Your task to perform on an android device: open app "Duolingo: language lessons" Image 0: 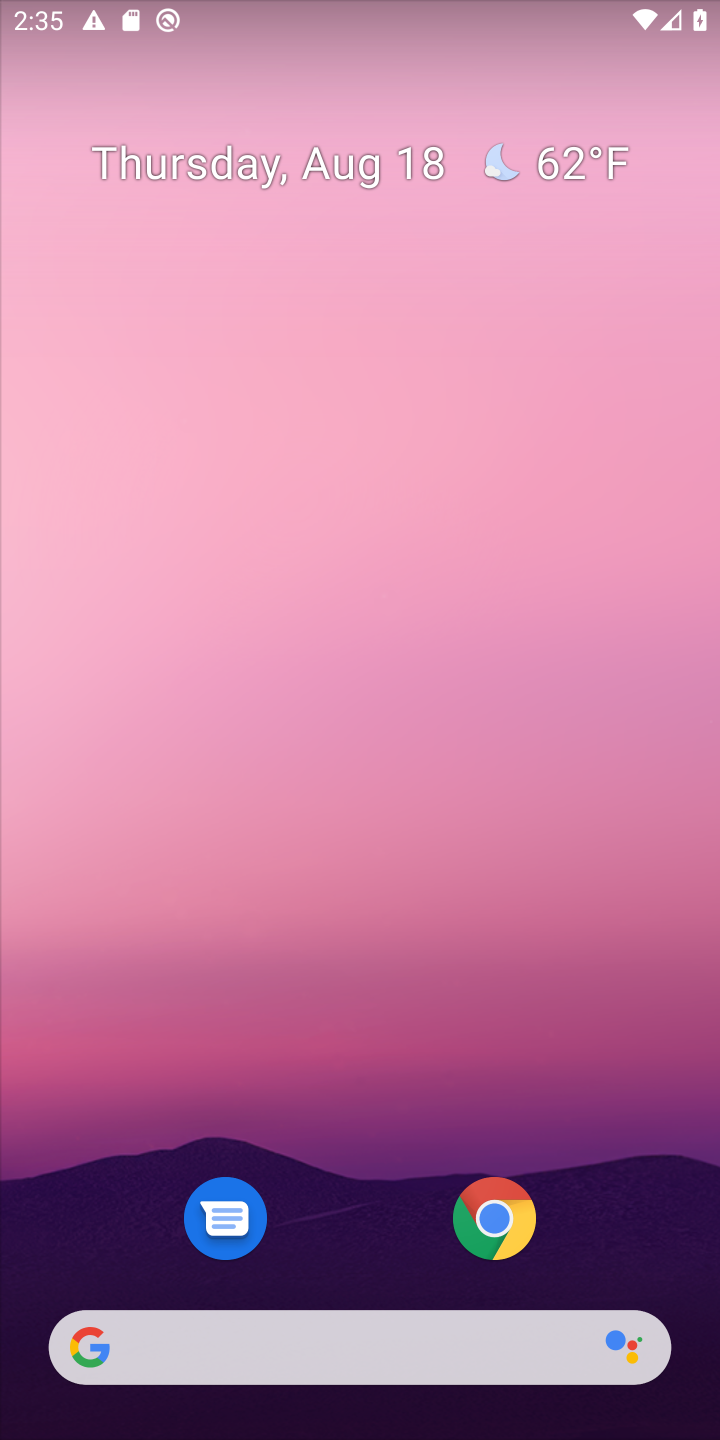
Step 0: drag from (314, 1030) to (351, 245)
Your task to perform on an android device: open app "Duolingo: language lessons" Image 1: 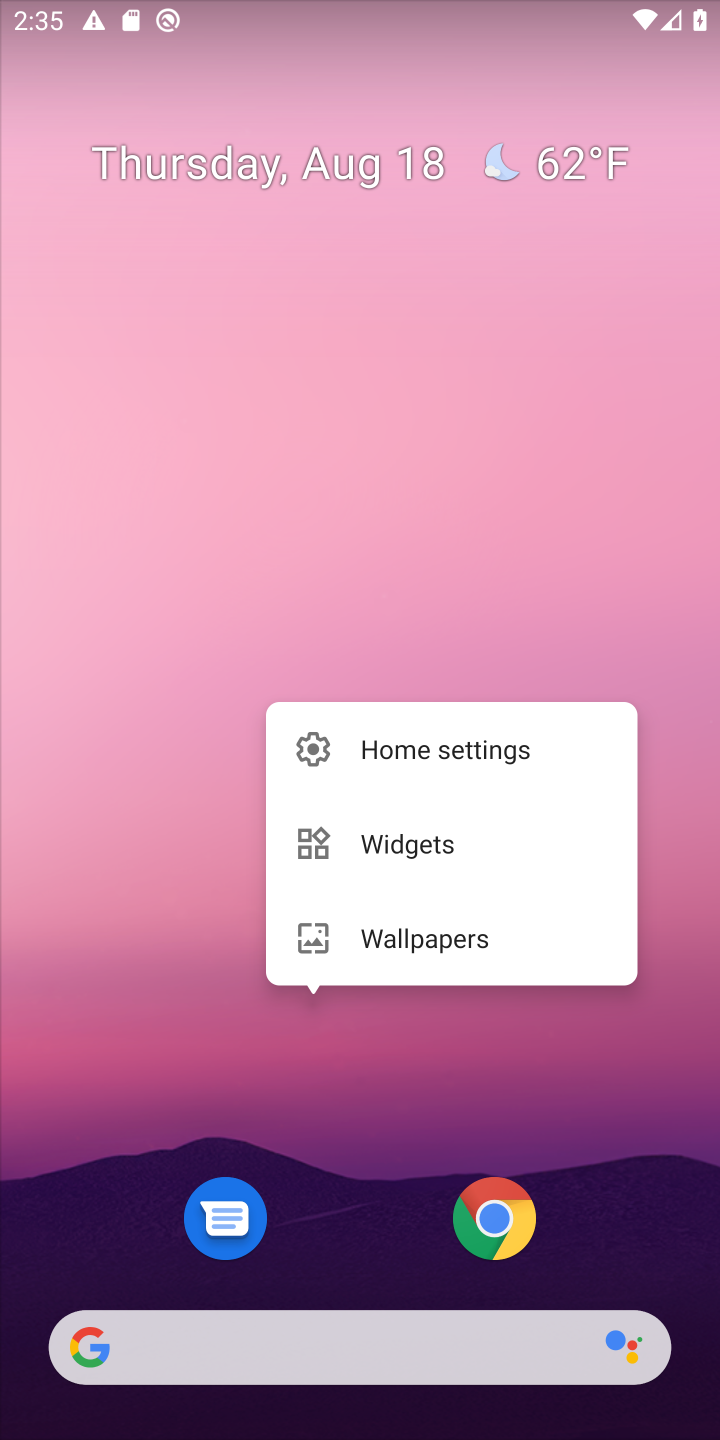
Step 1: click (154, 940)
Your task to perform on an android device: open app "Duolingo: language lessons" Image 2: 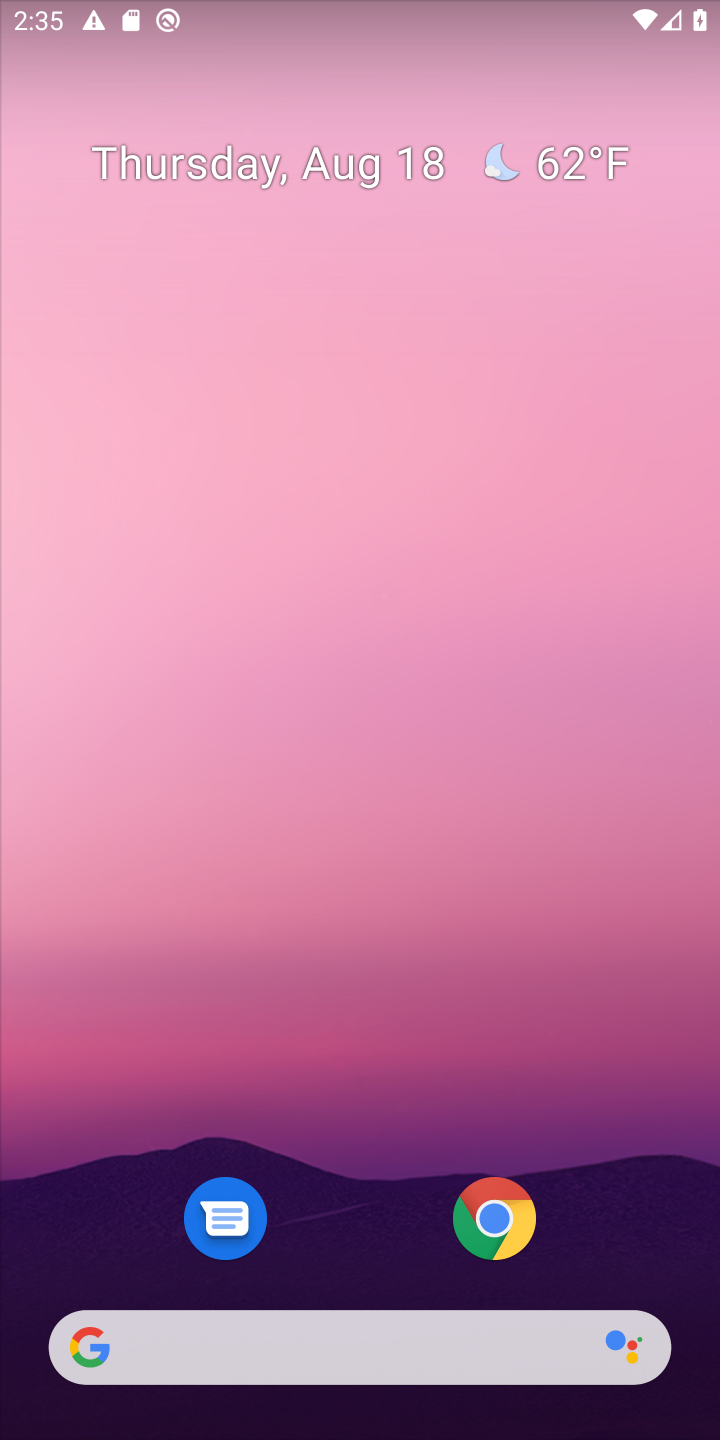
Step 2: drag from (399, 1022) to (408, 290)
Your task to perform on an android device: open app "Duolingo: language lessons" Image 3: 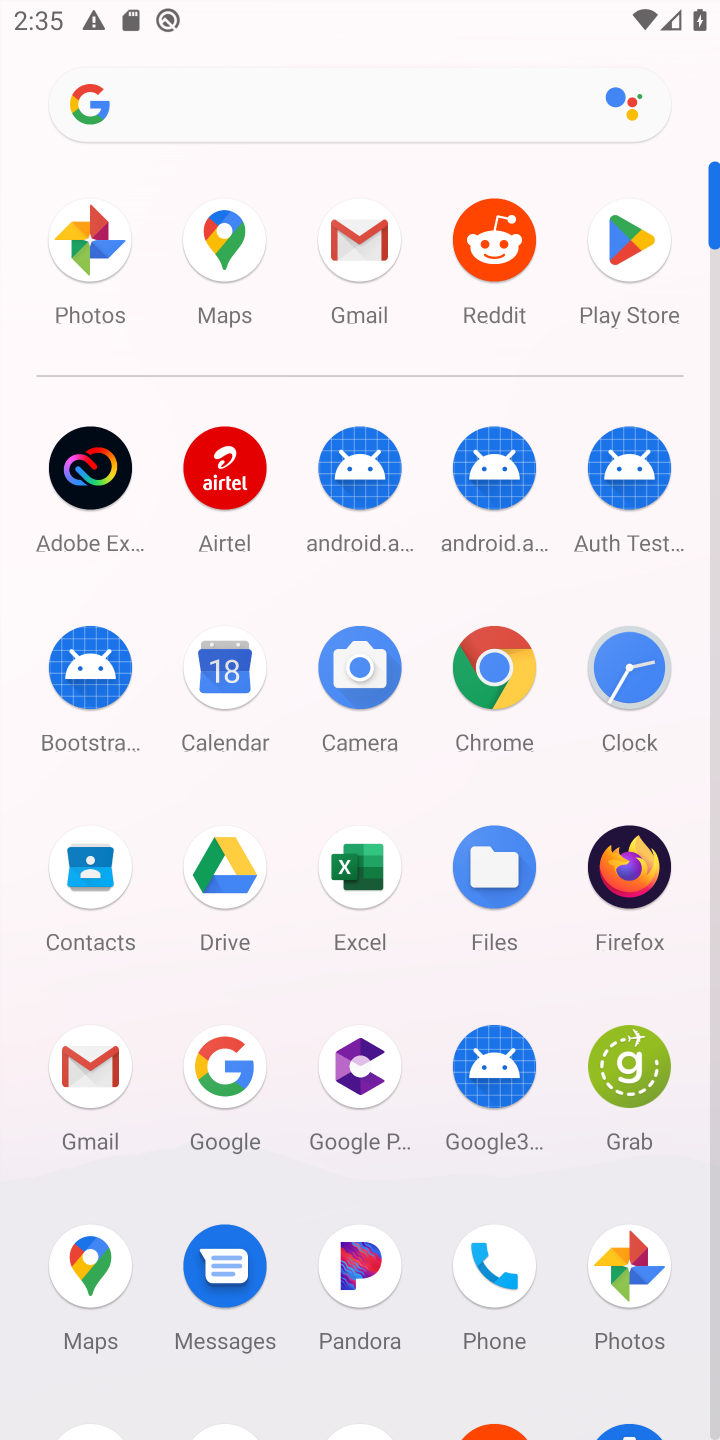
Step 3: click (618, 273)
Your task to perform on an android device: open app "Duolingo: language lessons" Image 4: 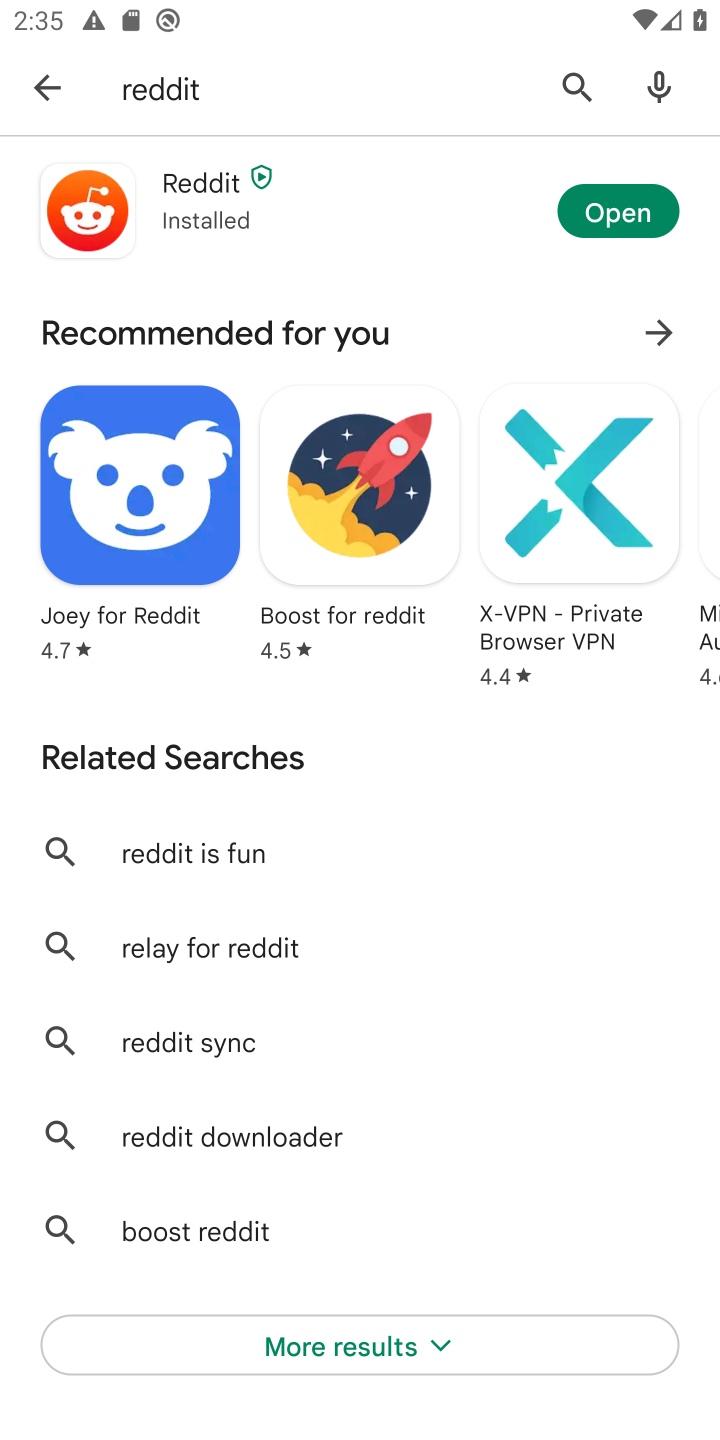
Step 4: click (577, 94)
Your task to perform on an android device: open app "Duolingo: language lessons" Image 5: 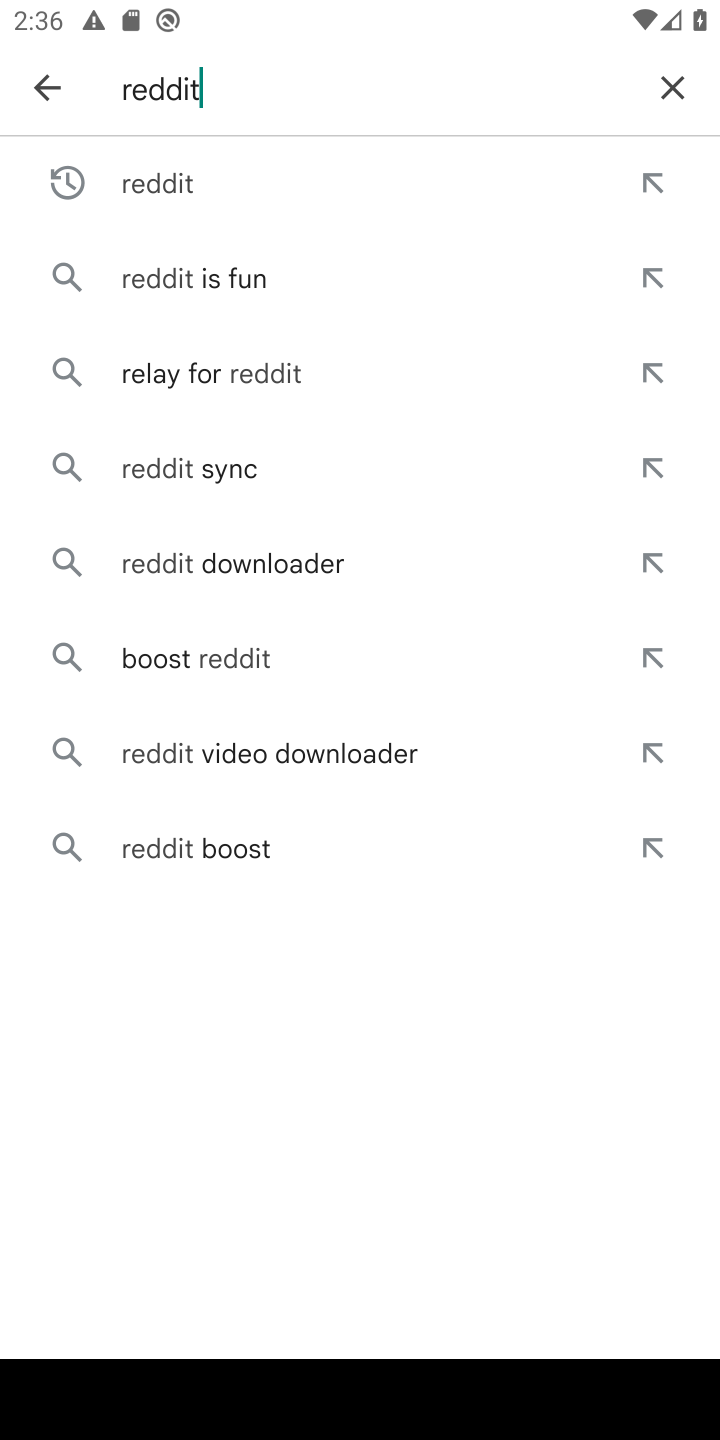
Step 5: click (676, 74)
Your task to perform on an android device: open app "Duolingo: language lessons" Image 6: 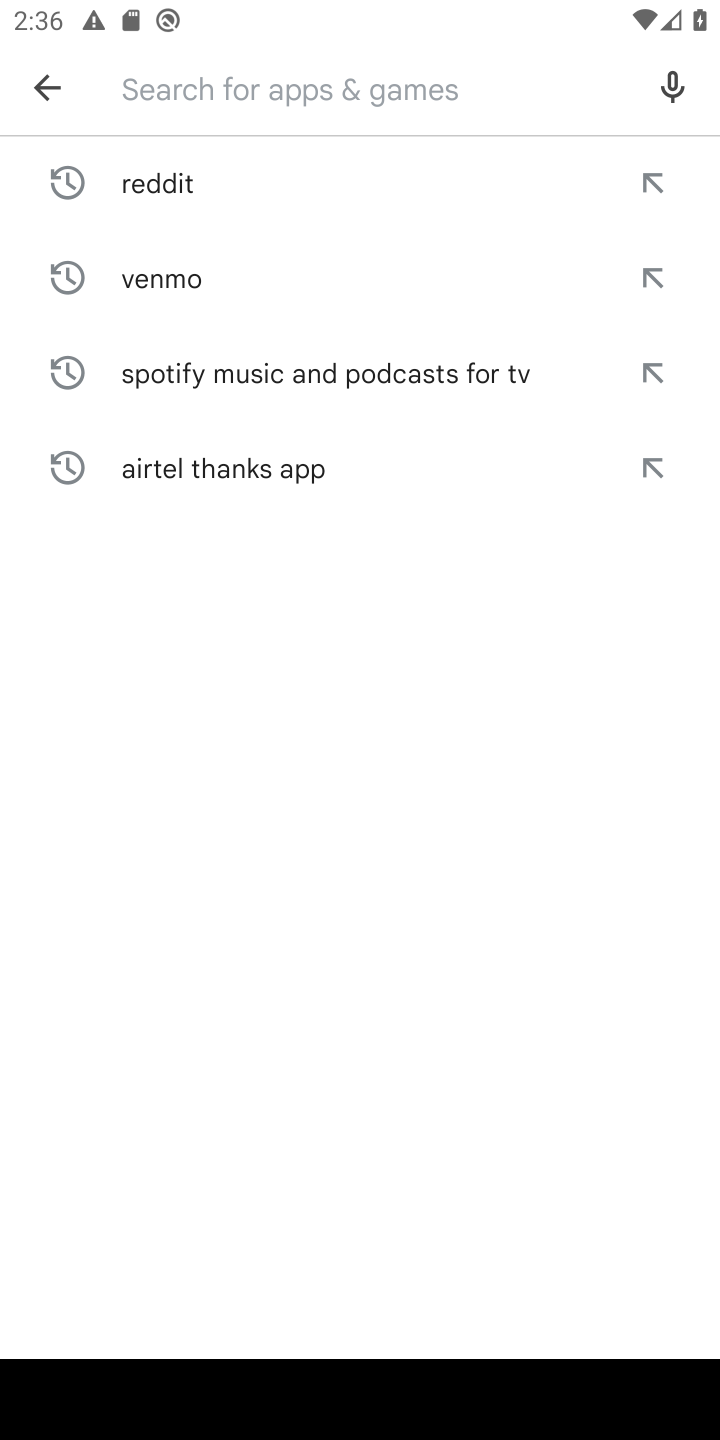
Step 6: type "Duolingo: language lessons"
Your task to perform on an android device: open app "Duolingo: language lessons" Image 7: 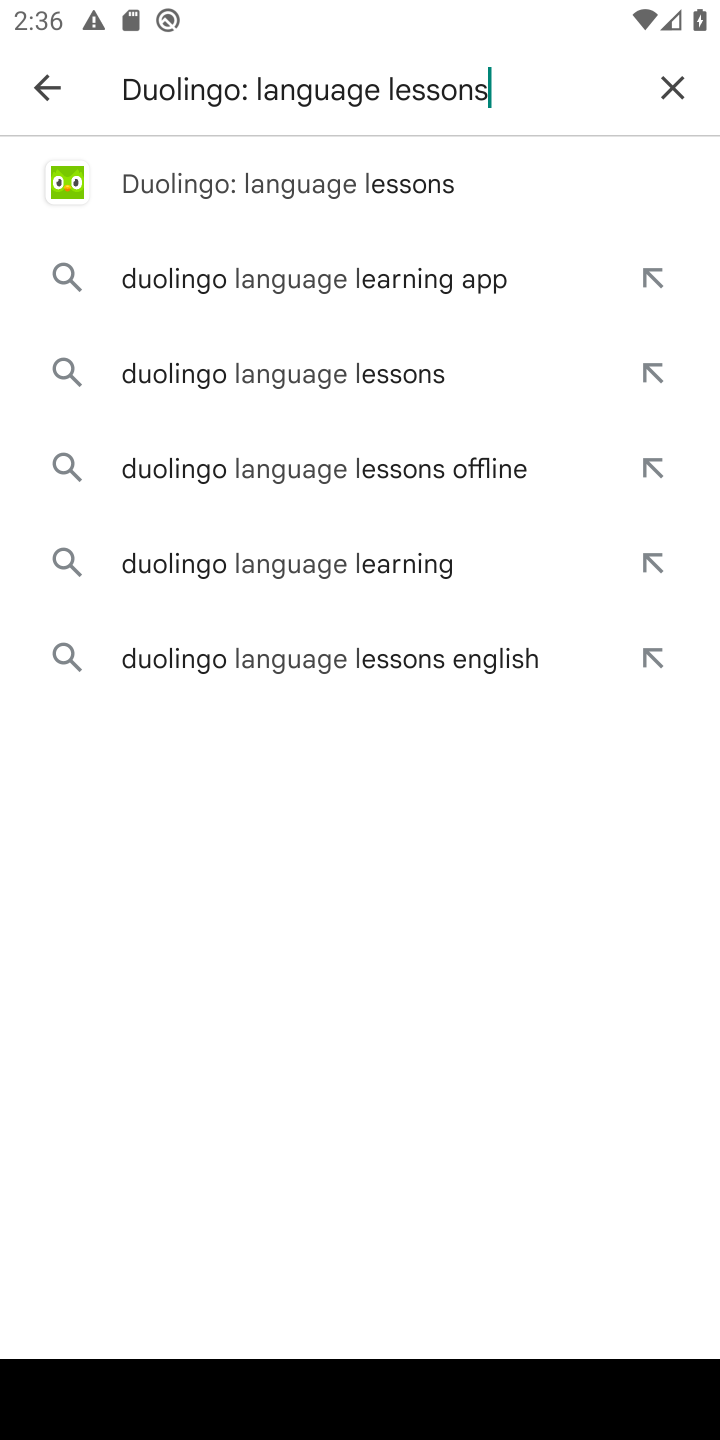
Step 7: type ""
Your task to perform on an android device: open app "Duolingo: language lessons" Image 8: 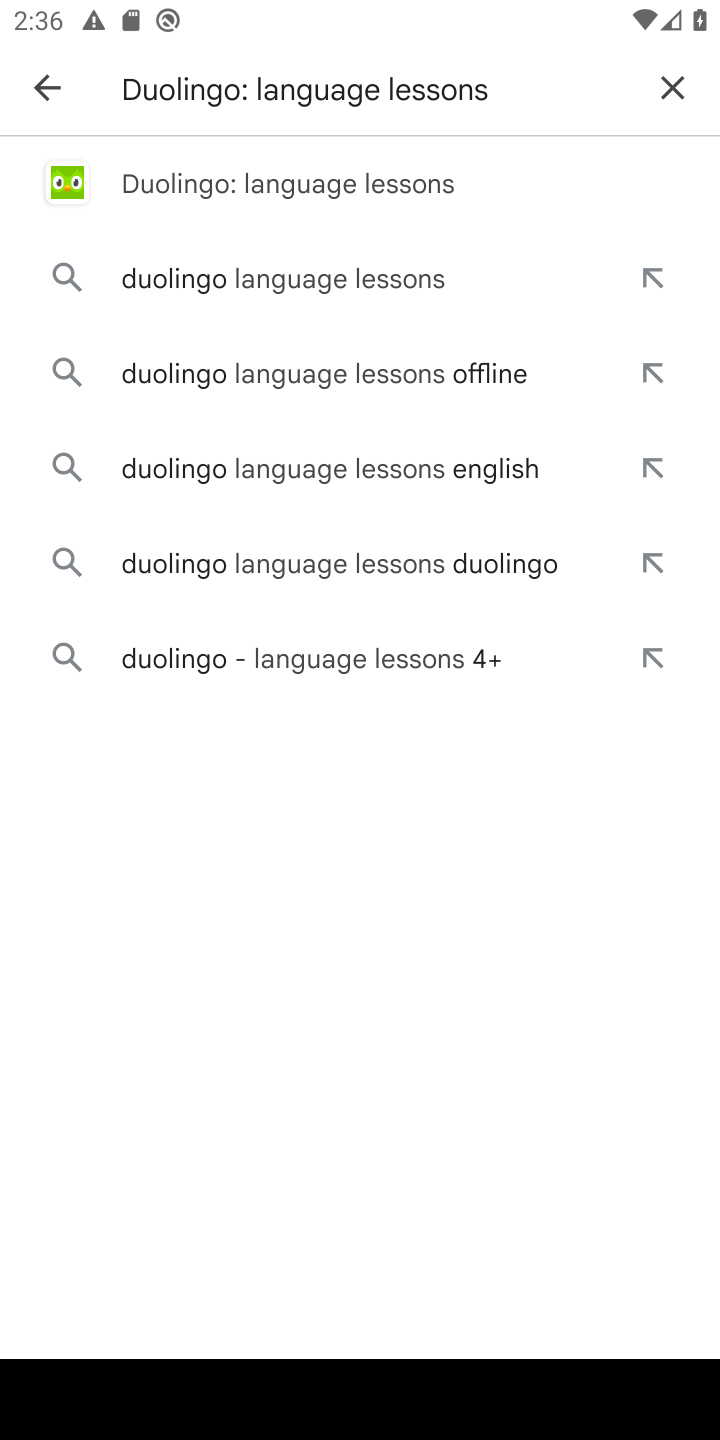
Step 8: click (301, 168)
Your task to perform on an android device: open app "Duolingo: language lessons" Image 9: 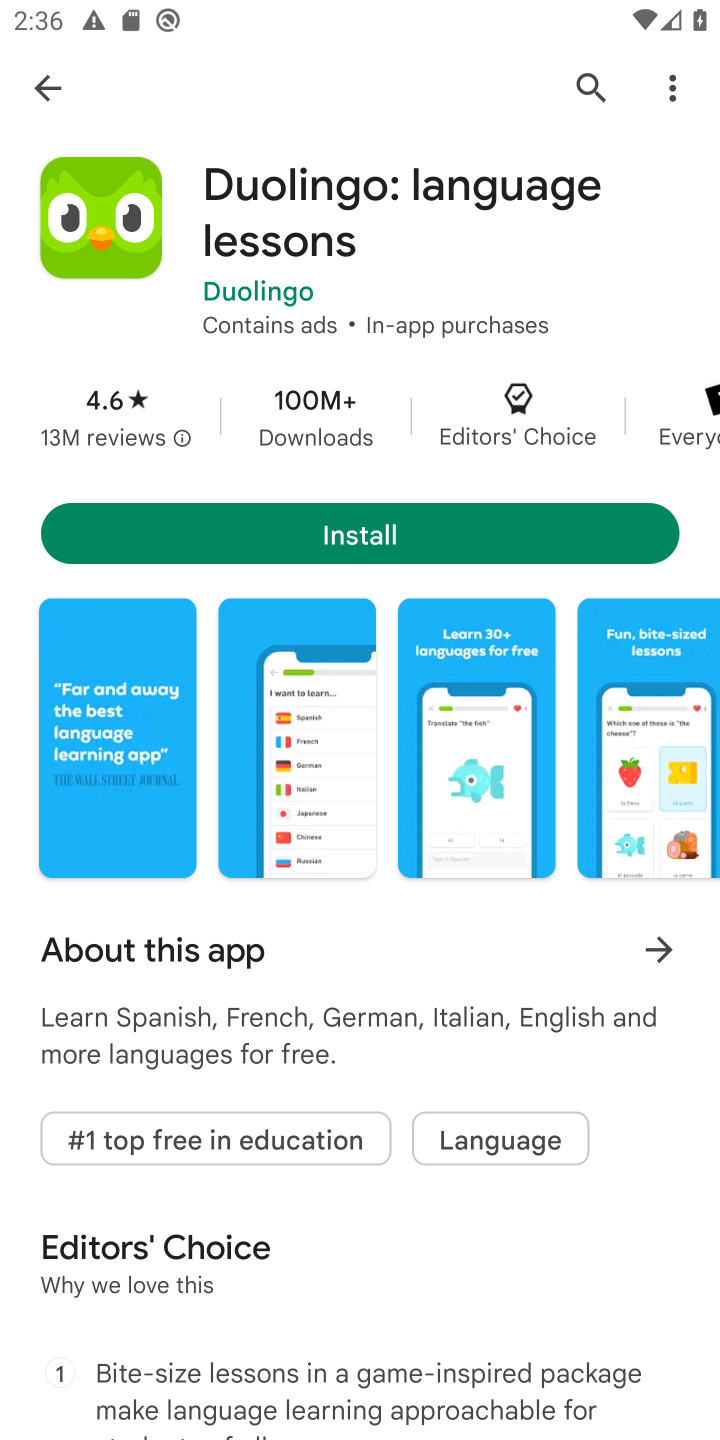
Step 9: task complete